Your task to perform on an android device: Search for Mexican restaurants on Maps Image 0: 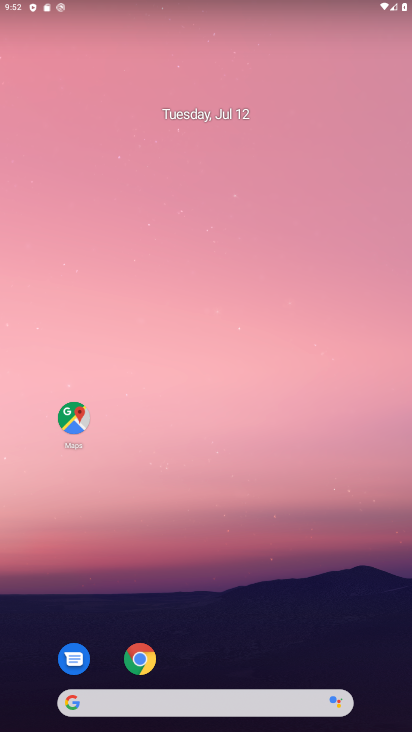
Step 0: click (61, 416)
Your task to perform on an android device: Search for Mexican restaurants on Maps Image 1: 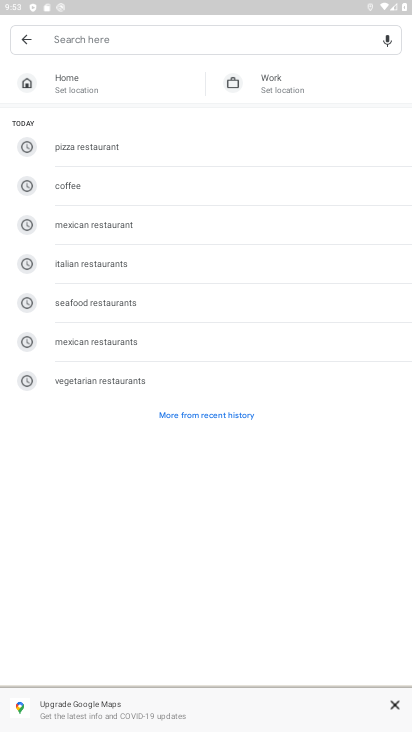
Step 1: press home button
Your task to perform on an android device: Search for Mexican restaurants on Maps Image 2: 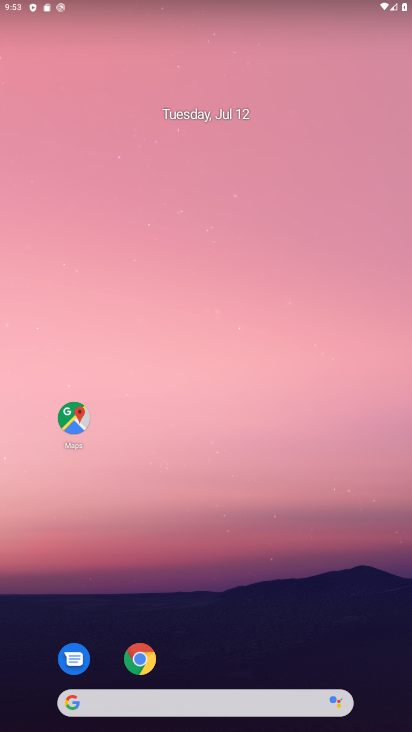
Step 2: click (70, 410)
Your task to perform on an android device: Search for Mexican restaurants on Maps Image 3: 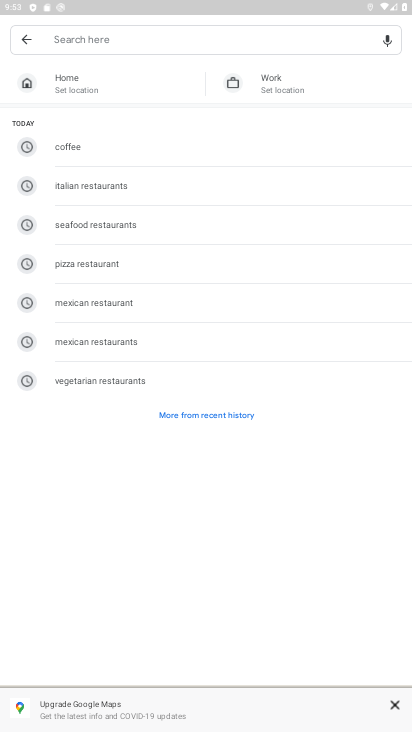
Step 3: click (98, 29)
Your task to perform on an android device: Search for Mexican restaurants on Maps Image 4: 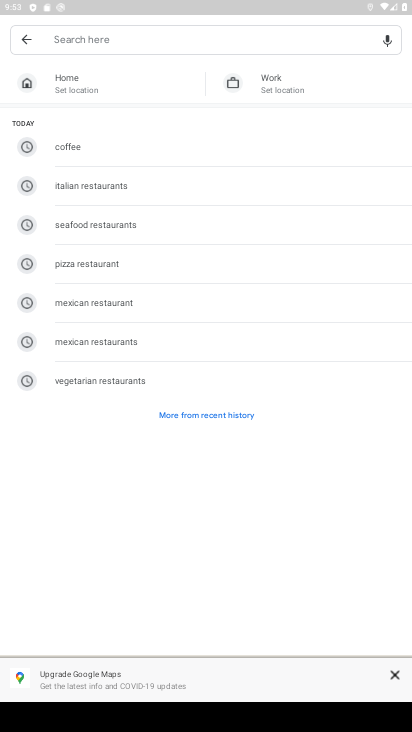
Step 4: type "Mexican restaurants"
Your task to perform on an android device: Search for Mexican restaurants on Maps Image 5: 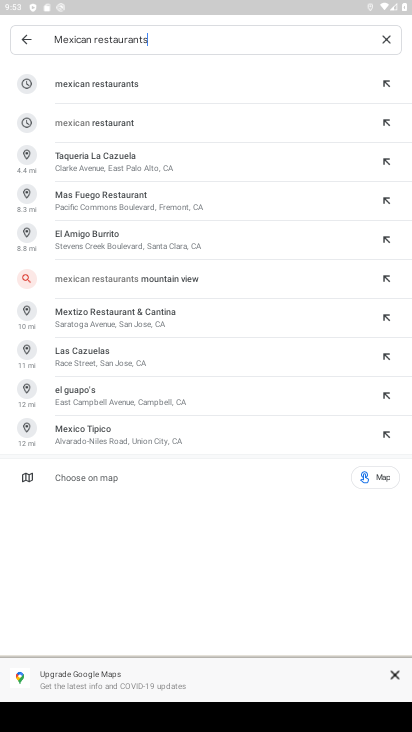
Step 5: click (71, 273)
Your task to perform on an android device: Search for Mexican restaurants on Maps Image 6: 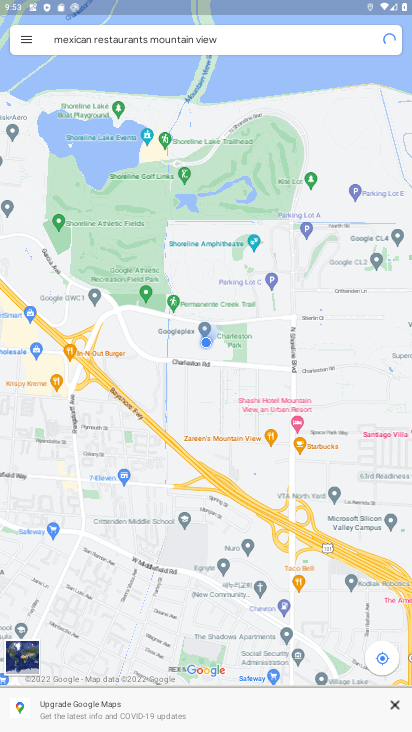
Step 6: task complete